Your task to perform on an android device: Open the phone app and click the voicemail tab. Image 0: 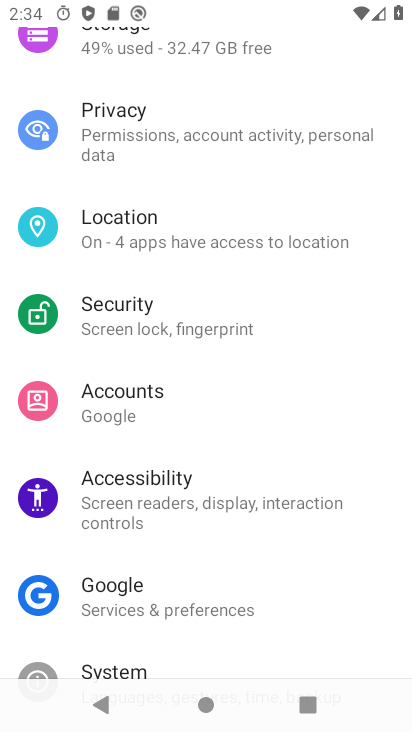
Step 0: press home button
Your task to perform on an android device: Open the phone app and click the voicemail tab. Image 1: 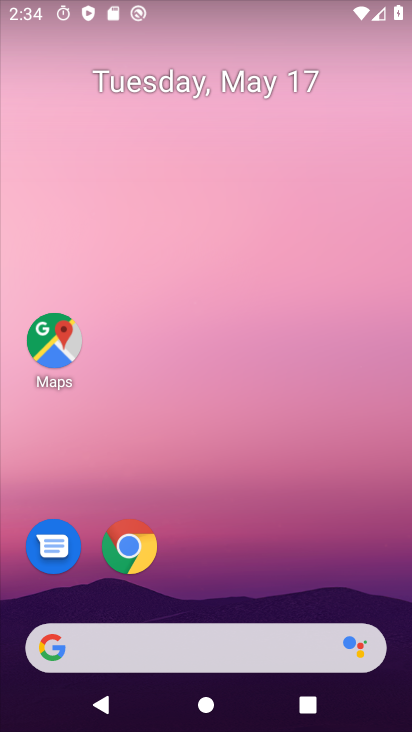
Step 1: drag from (255, 655) to (191, 116)
Your task to perform on an android device: Open the phone app and click the voicemail tab. Image 2: 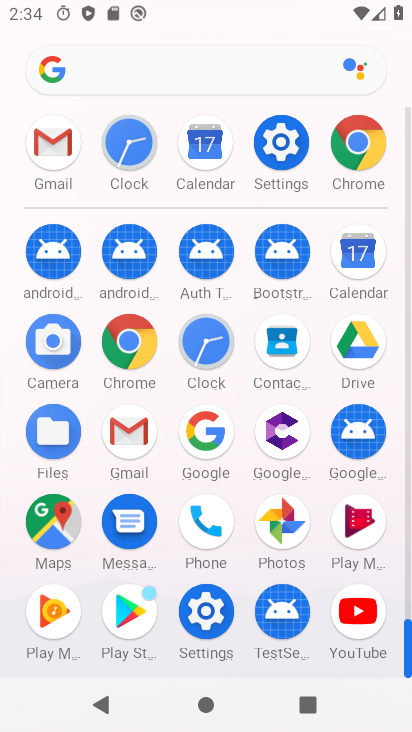
Step 2: click (209, 527)
Your task to perform on an android device: Open the phone app and click the voicemail tab. Image 3: 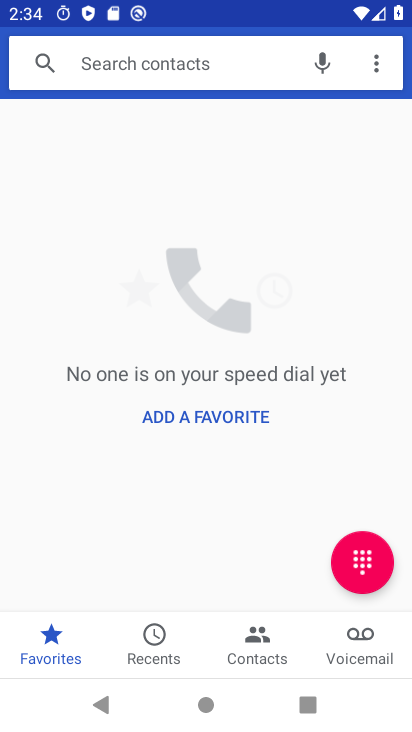
Step 3: click (357, 657)
Your task to perform on an android device: Open the phone app and click the voicemail tab. Image 4: 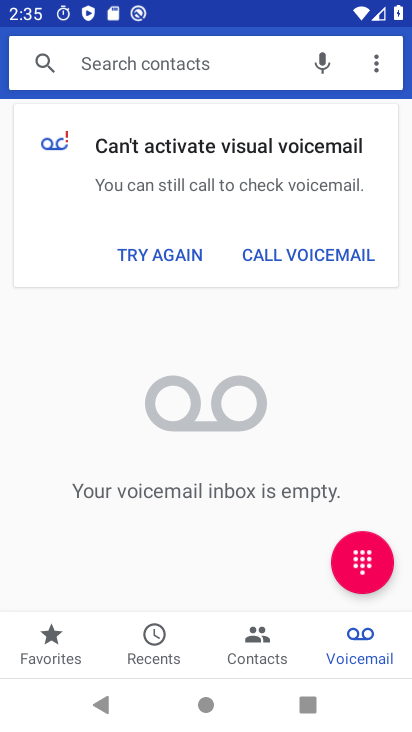
Step 4: task complete